Your task to perform on an android device: What's the weather? Image 0: 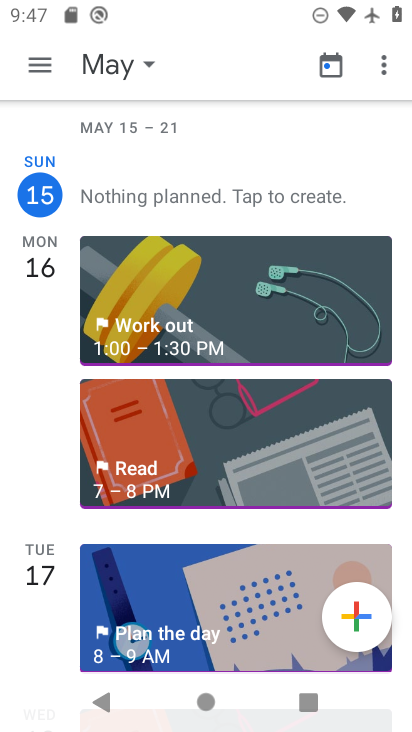
Step 0: press home button
Your task to perform on an android device: What's the weather? Image 1: 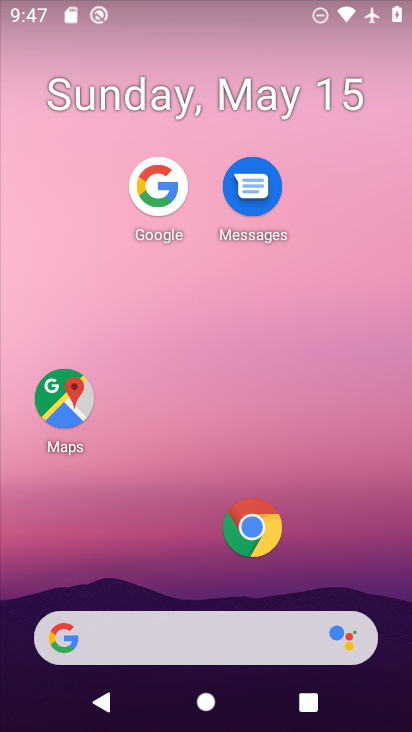
Step 1: click (56, 642)
Your task to perform on an android device: What's the weather? Image 2: 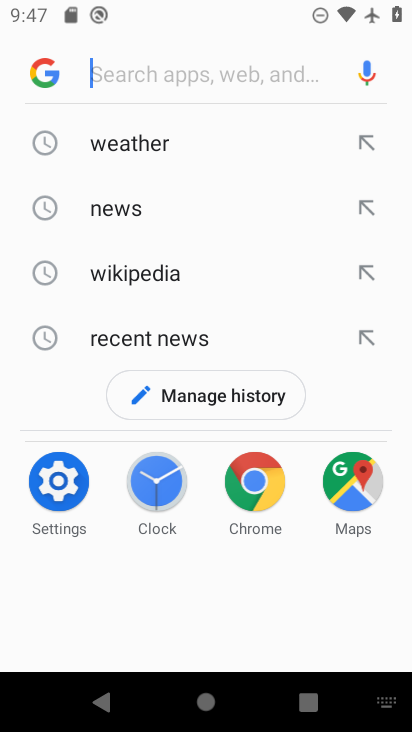
Step 2: click (128, 144)
Your task to perform on an android device: What's the weather? Image 3: 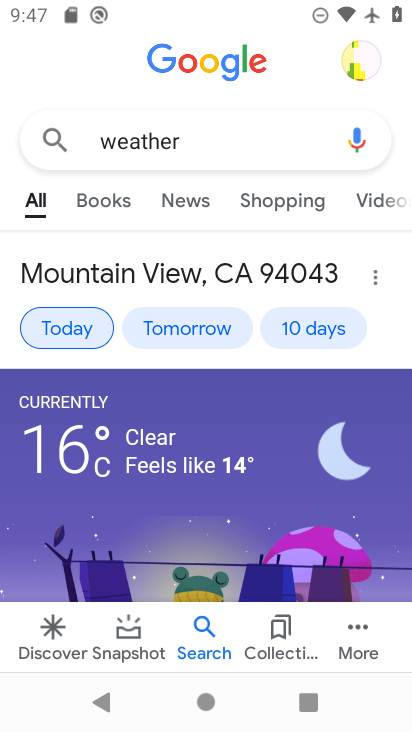
Step 3: task complete